Your task to perform on an android device: uninstall "Adobe Express: Graphic Design" Image 0: 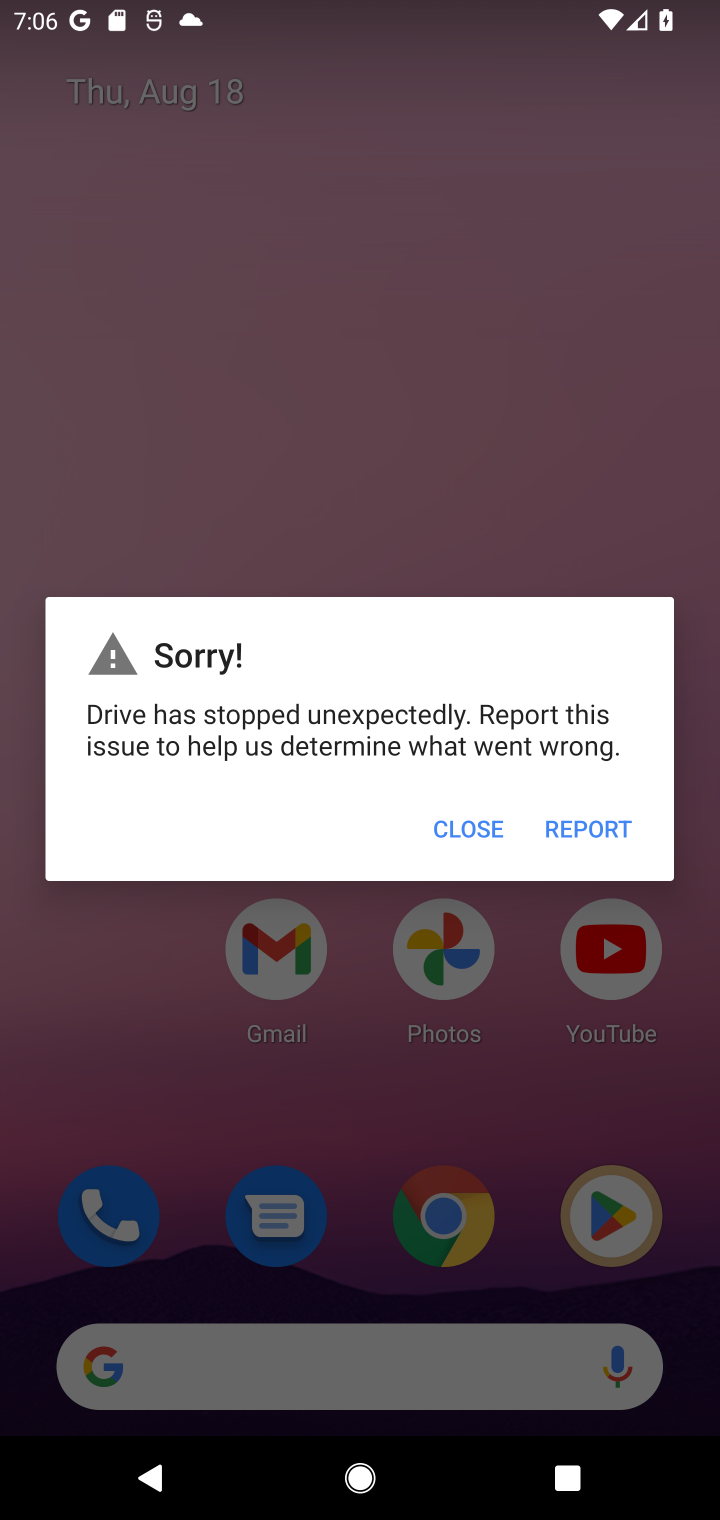
Step 0: press home button
Your task to perform on an android device: uninstall "Adobe Express: Graphic Design" Image 1: 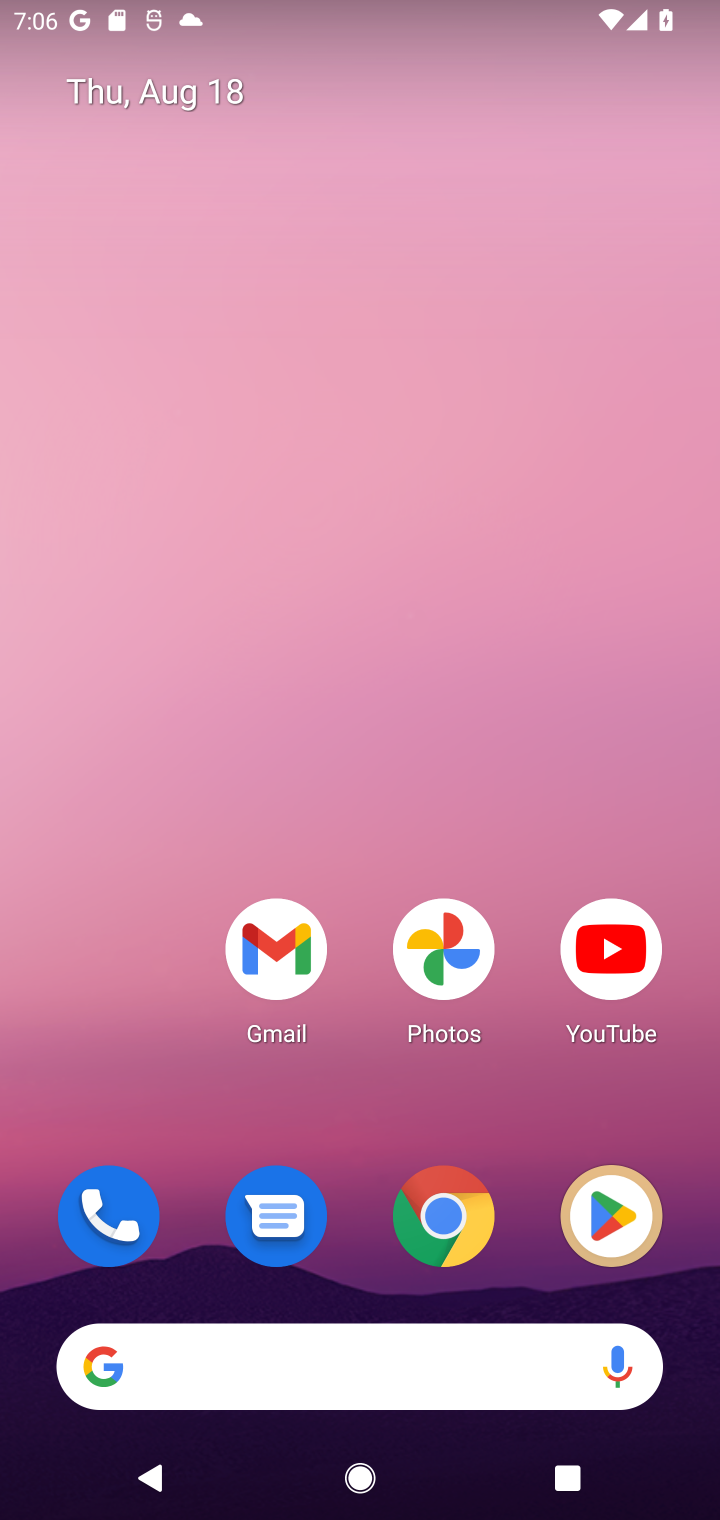
Step 1: click (617, 1217)
Your task to perform on an android device: uninstall "Adobe Express: Graphic Design" Image 2: 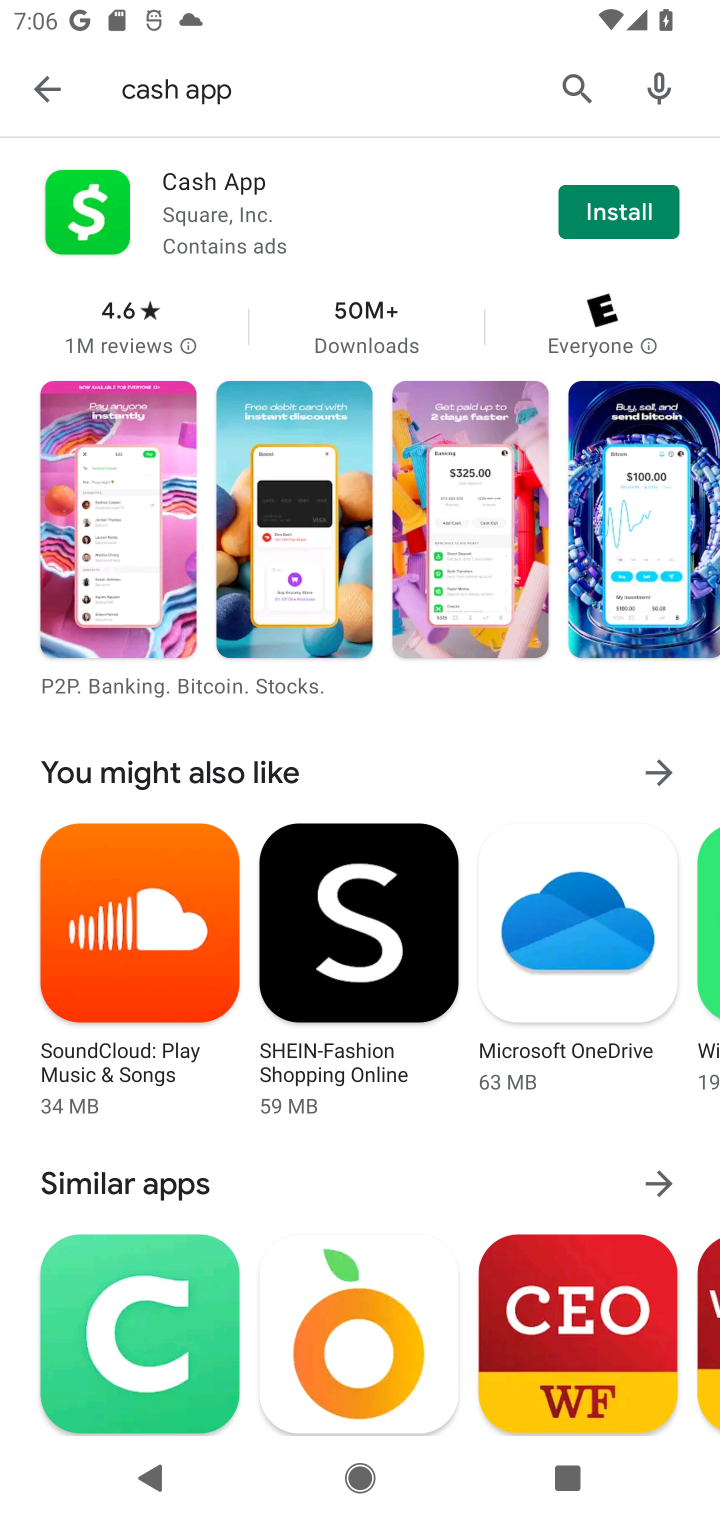
Step 2: click (576, 88)
Your task to perform on an android device: uninstall "Adobe Express: Graphic Design" Image 3: 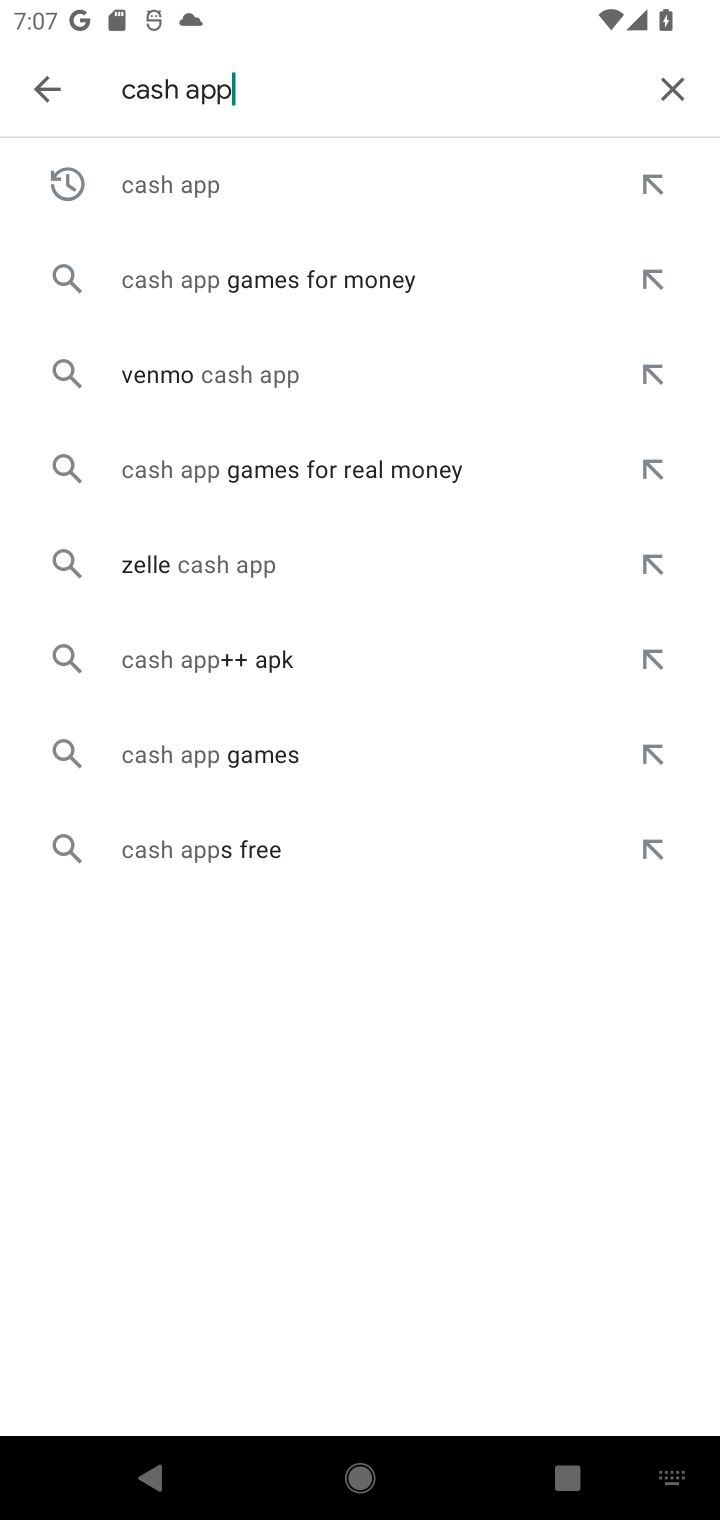
Step 3: click (675, 91)
Your task to perform on an android device: uninstall "Adobe Express: Graphic Design" Image 4: 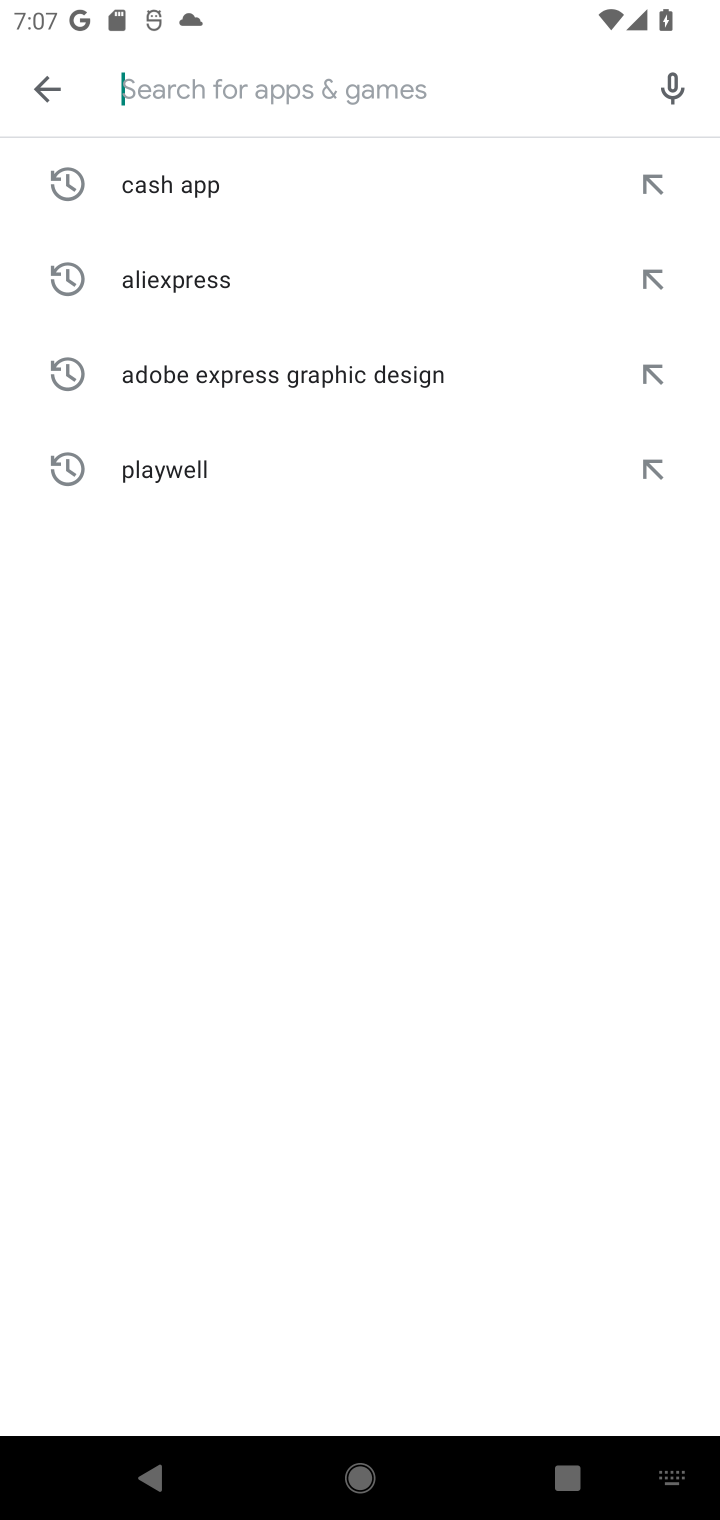
Step 4: type "Adobe Express: Graphic Design"
Your task to perform on an android device: uninstall "Adobe Express: Graphic Design" Image 5: 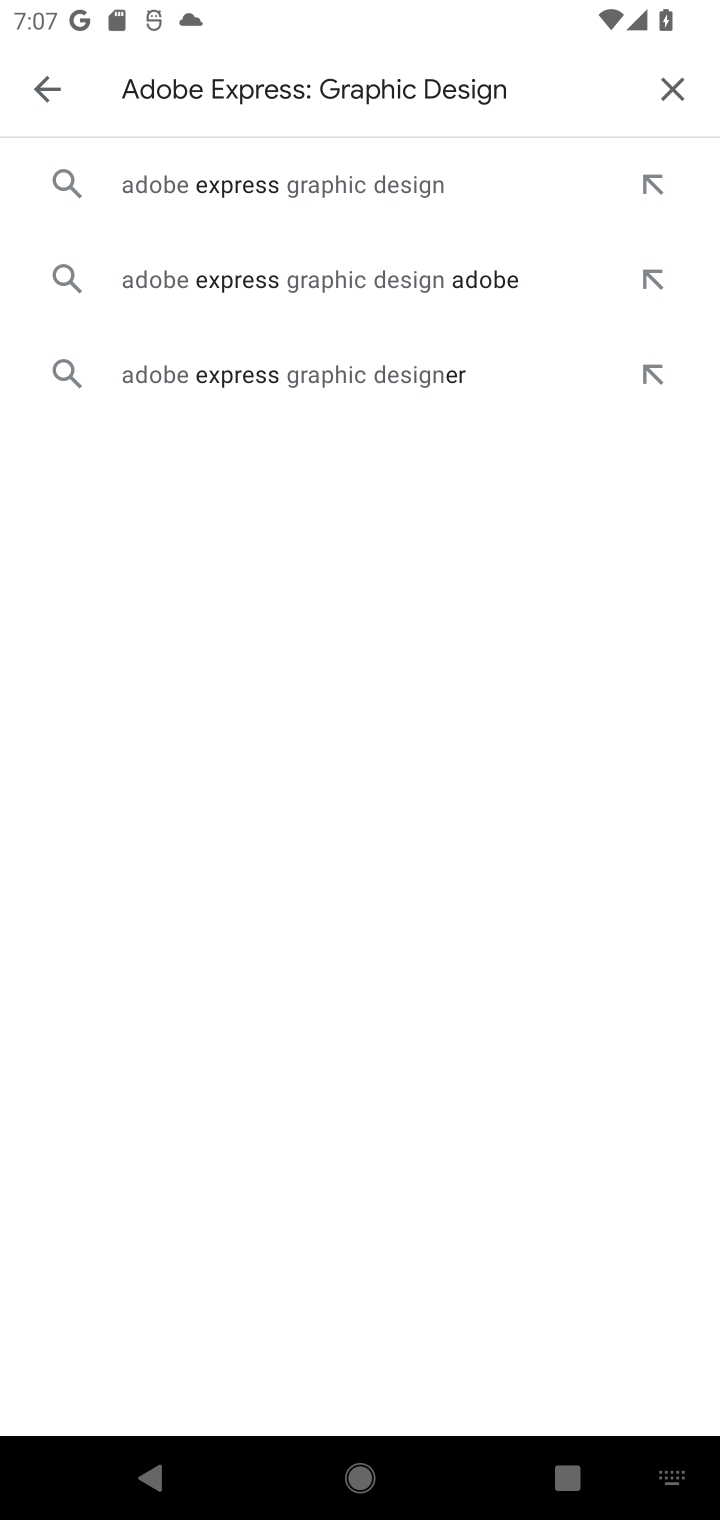
Step 5: click (251, 177)
Your task to perform on an android device: uninstall "Adobe Express: Graphic Design" Image 6: 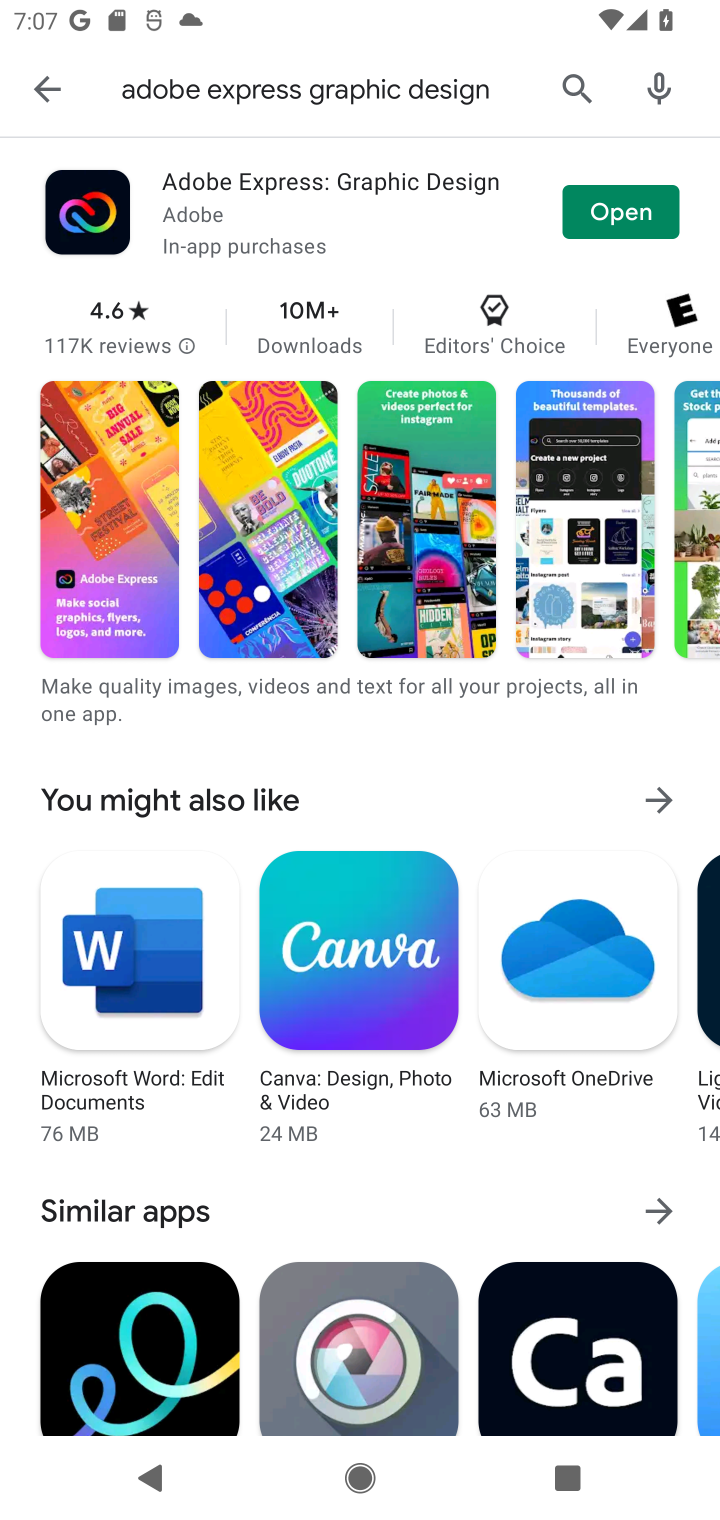
Step 6: click (228, 171)
Your task to perform on an android device: uninstall "Adobe Express: Graphic Design" Image 7: 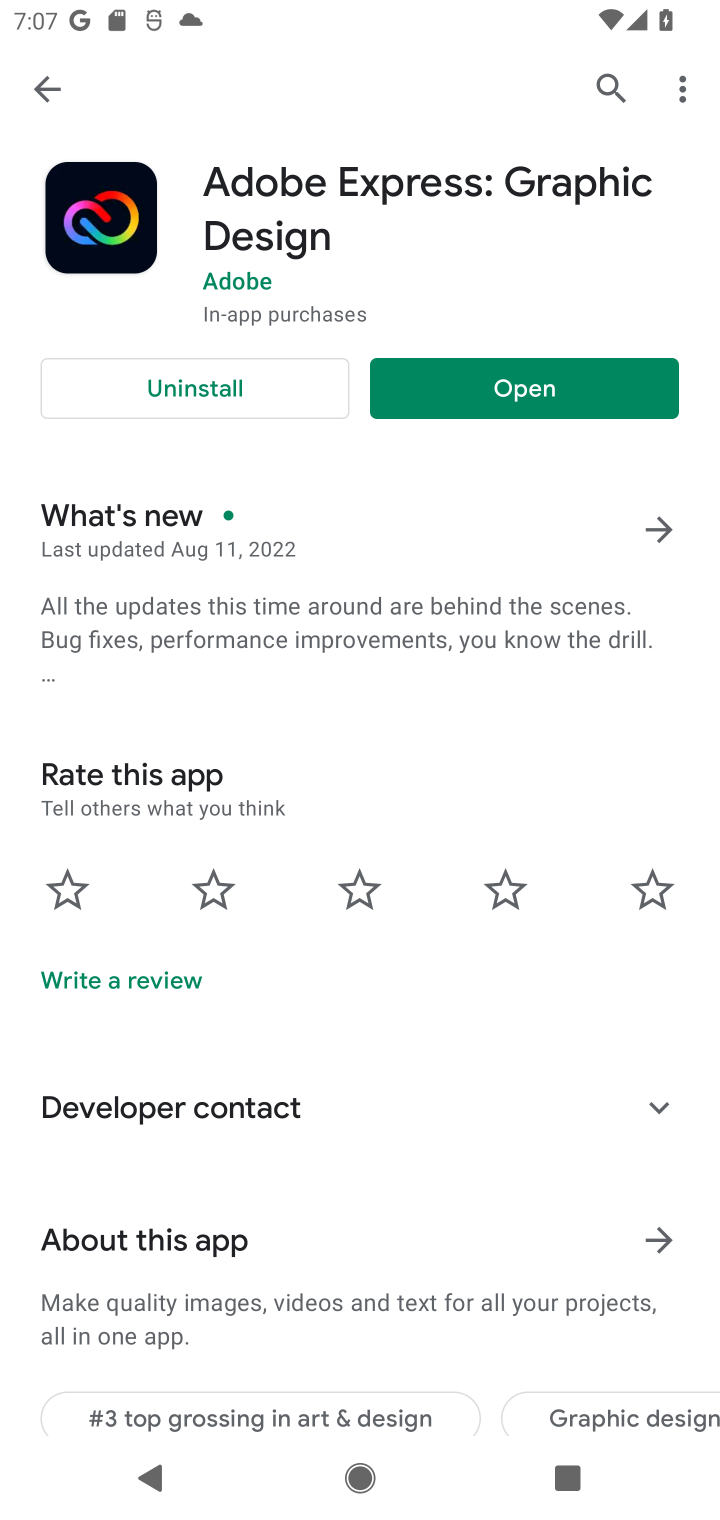
Step 7: click (171, 385)
Your task to perform on an android device: uninstall "Adobe Express: Graphic Design" Image 8: 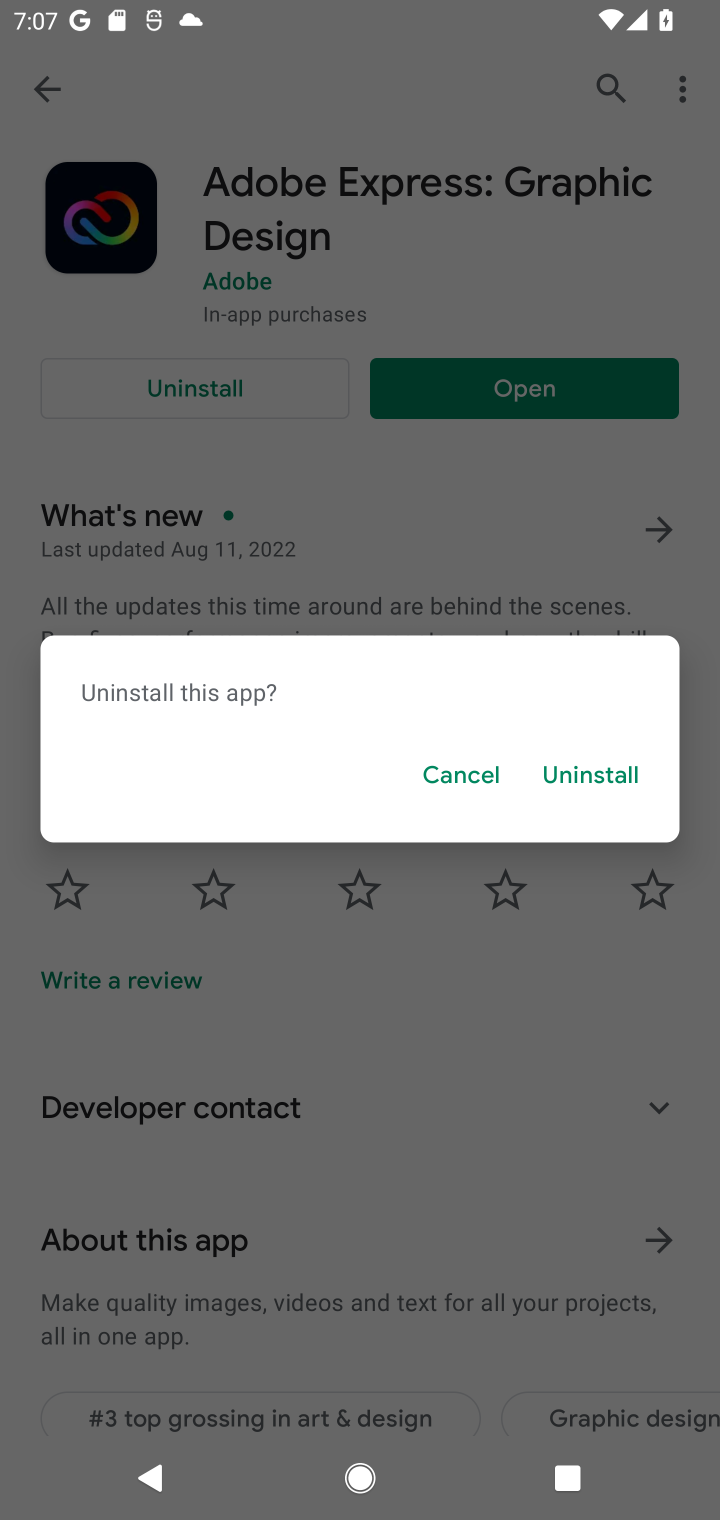
Step 8: click (584, 774)
Your task to perform on an android device: uninstall "Adobe Express: Graphic Design" Image 9: 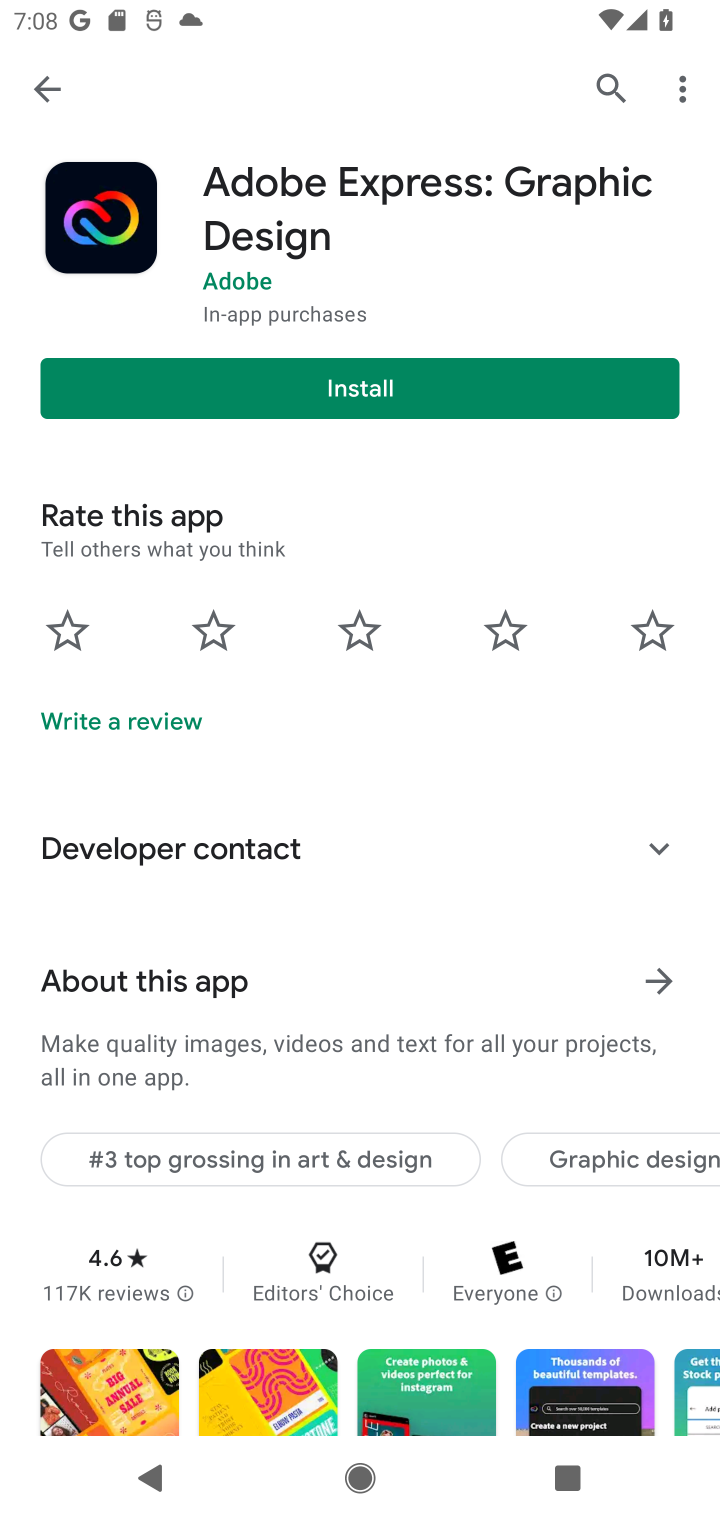
Step 9: task complete